Your task to perform on an android device: turn on airplane mode Image 0: 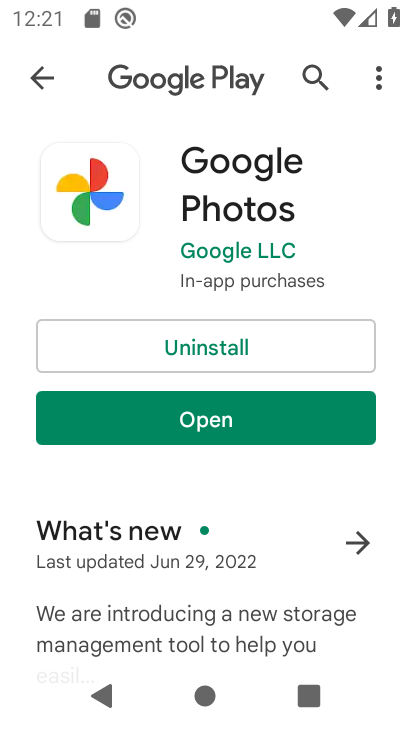
Step 0: press home button
Your task to perform on an android device: turn on airplane mode Image 1: 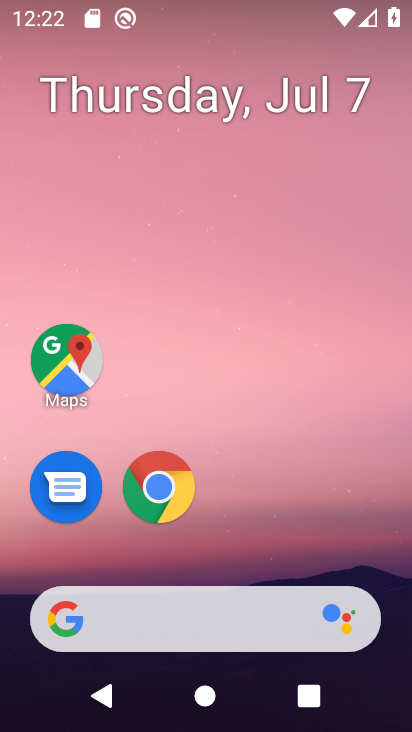
Step 1: drag from (360, 527) to (328, 118)
Your task to perform on an android device: turn on airplane mode Image 2: 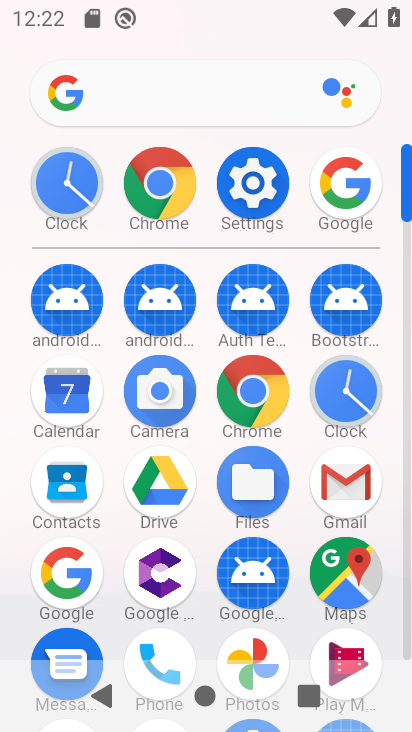
Step 2: click (259, 201)
Your task to perform on an android device: turn on airplane mode Image 3: 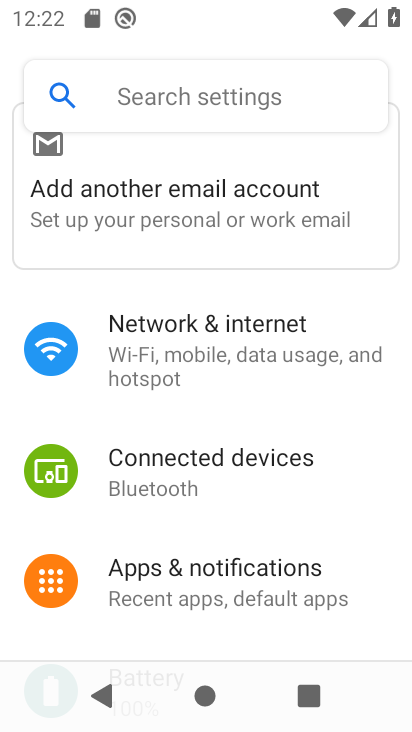
Step 3: drag from (364, 578) to (389, 390)
Your task to perform on an android device: turn on airplane mode Image 4: 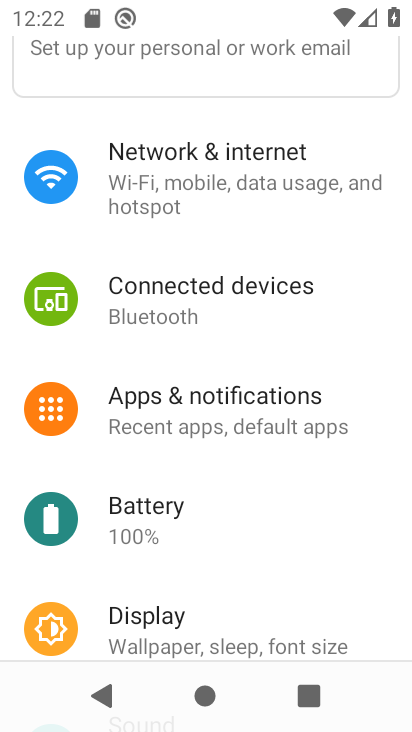
Step 4: drag from (359, 560) to (368, 371)
Your task to perform on an android device: turn on airplane mode Image 5: 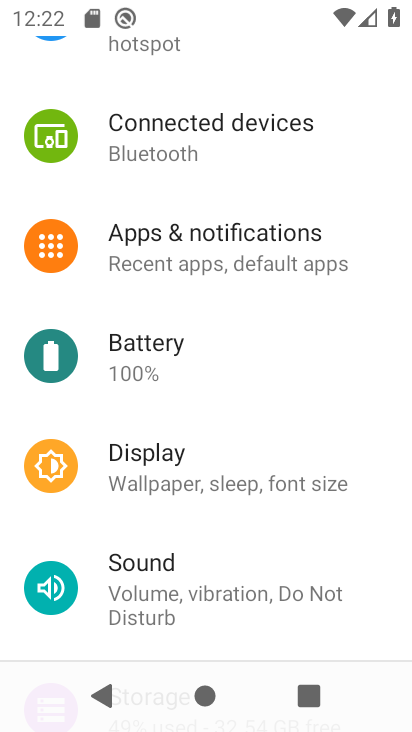
Step 5: drag from (362, 374) to (356, 227)
Your task to perform on an android device: turn on airplane mode Image 6: 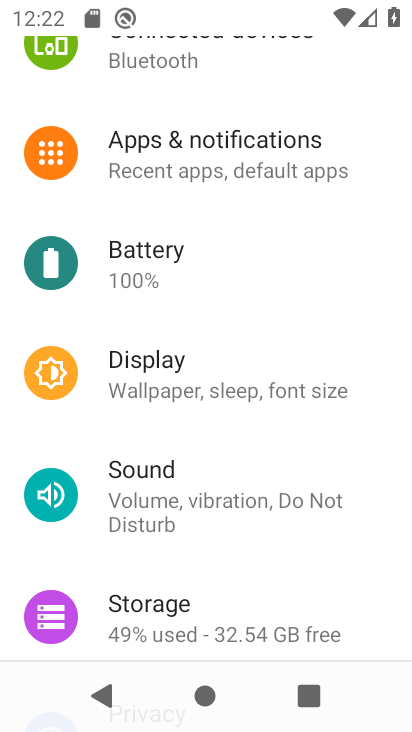
Step 6: drag from (374, 451) to (356, 272)
Your task to perform on an android device: turn on airplane mode Image 7: 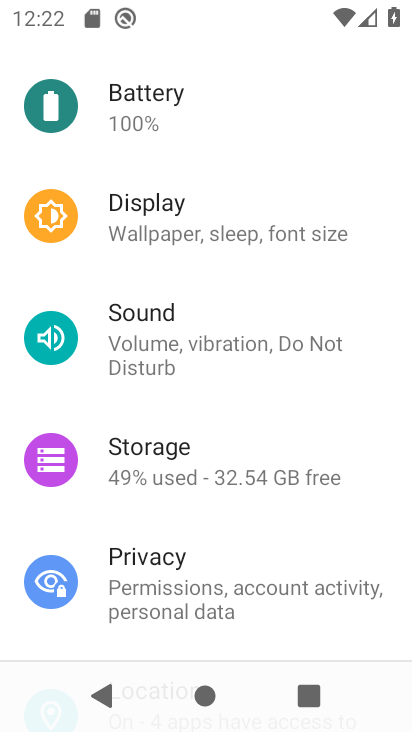
Step 7: drag from (364, 483) to (378, 337)
Your task to perform on an android device: turn on airplane mode Image 8: 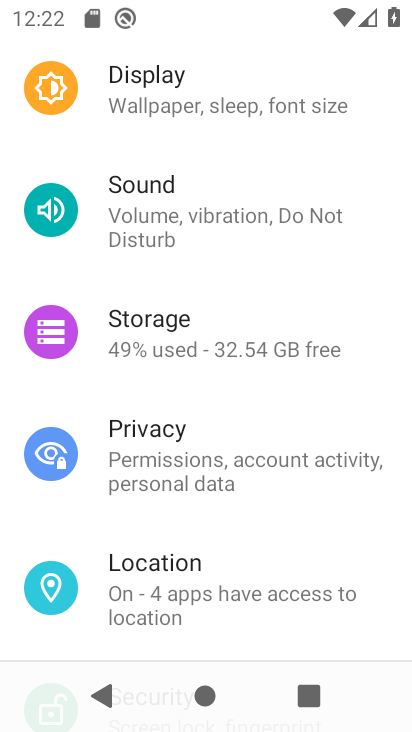
Step 8: drag from (356, 522) to (358, 388)
Your task to perform on an android device: turn on airplane mode Image 9: 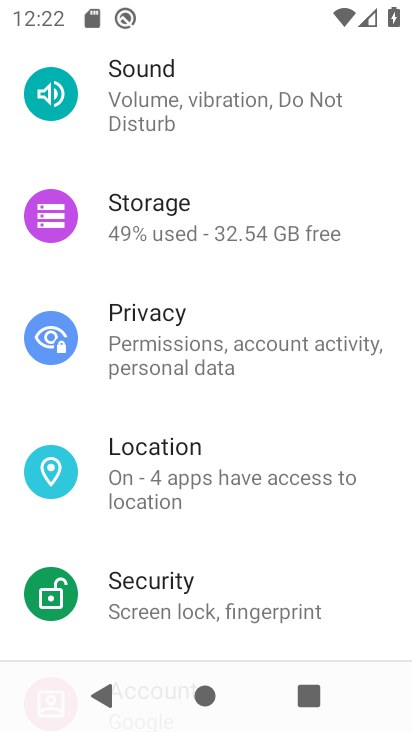
Step 9: drag from (365, 551) to (375, 412)
Your task to perform on an android device: turn on airplane mode Image 10: 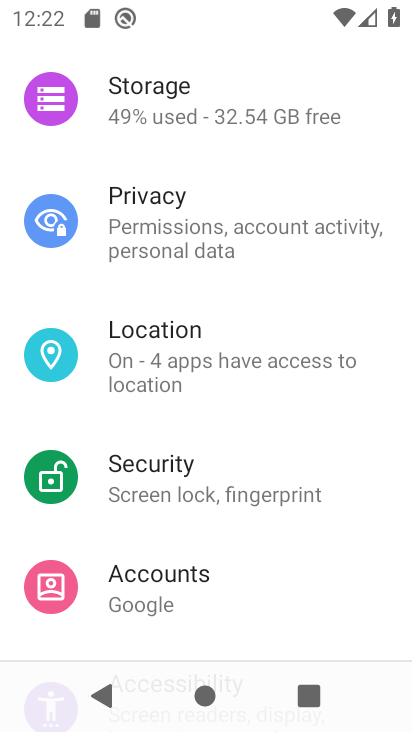
Step 10: drag from (360, 161) to (373, 339)
Your task to perform on an android device: turn on airplane mode Image 11: 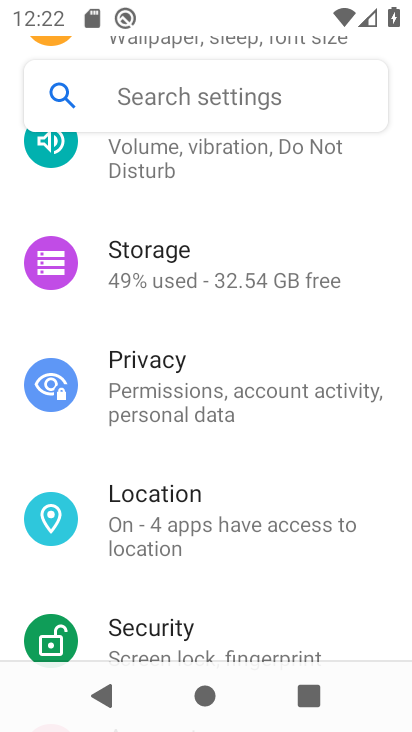
Step 11: drag from (376, 175) to (376, 337)
Your task to perform on an android device: turn on airplane mode Image 12: 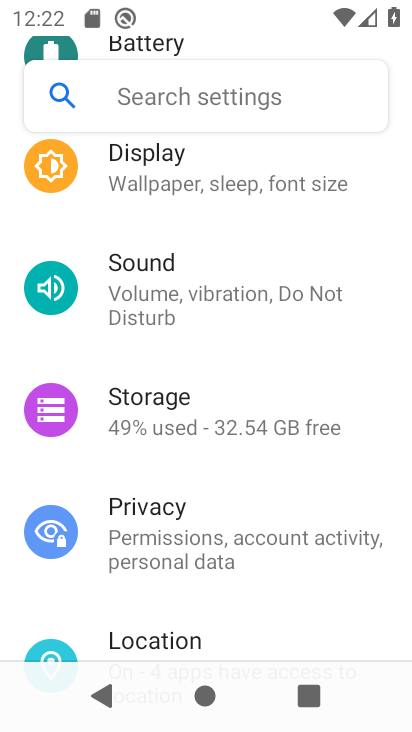
Step 12: drag from (361, 169) to (378, 339)
Your task to perform on an android device: turn on airplane mode Image 13: 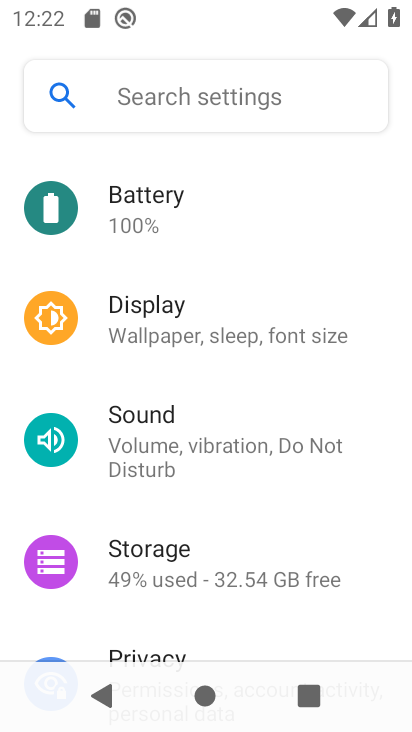
Step 13: drag from (362, 169) to (376, 351)
Your task to perform on an android device: turn on airplane mode Image 14: 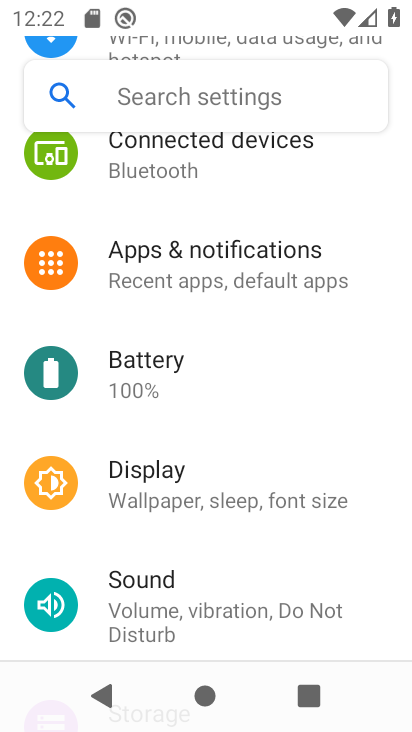
Step 14: drag from (362, 176) to (375, 322)
Your task to perform on an android device: turn on airplane mode Image 15: 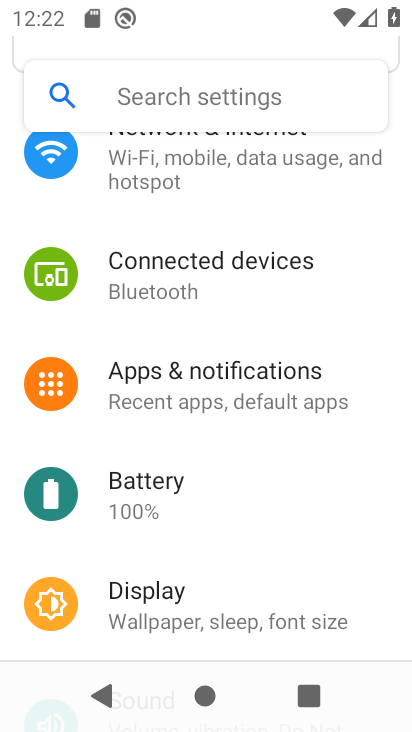
Step 15: drag from (387, 144) to (389, 314)
Your task to perform on an android device: turn on airplane mode Image 16: 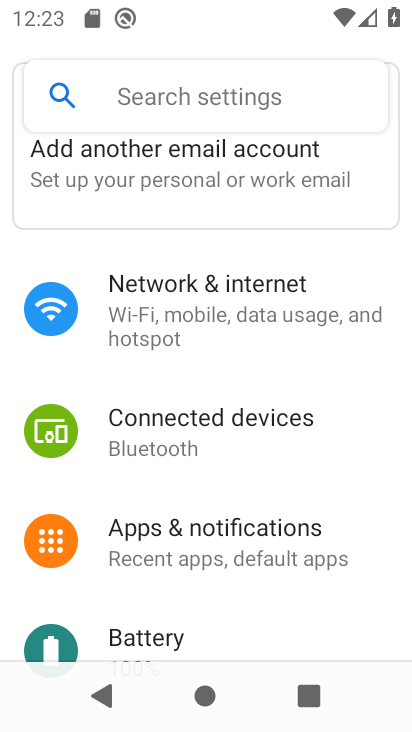
Step 16: click (261, 307)
Your task to perform on an android device: turn on airplane mode Image 17: 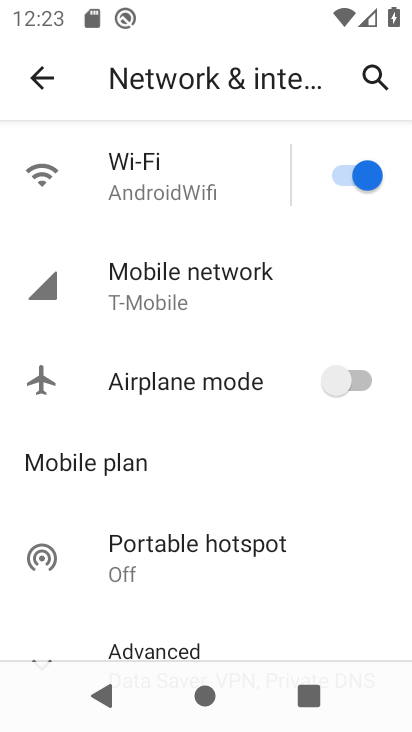
Step 17: click (339, 387)
Your task to perform on an android device: turn on airplane mode Image 18: 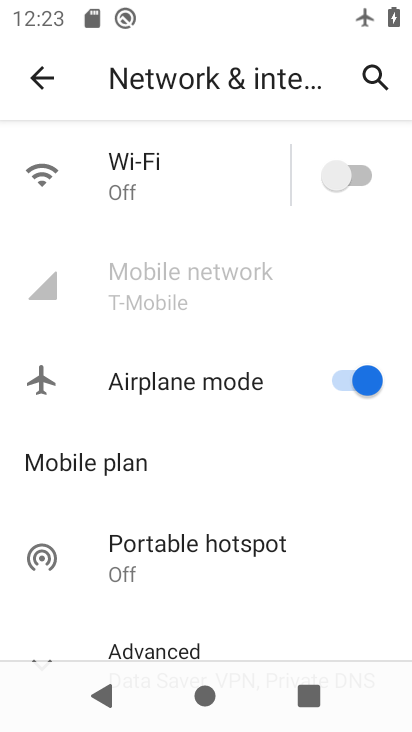
Step 18: task complete